Your task to perform on an android device: Set an alarm for 7pm Image 0: 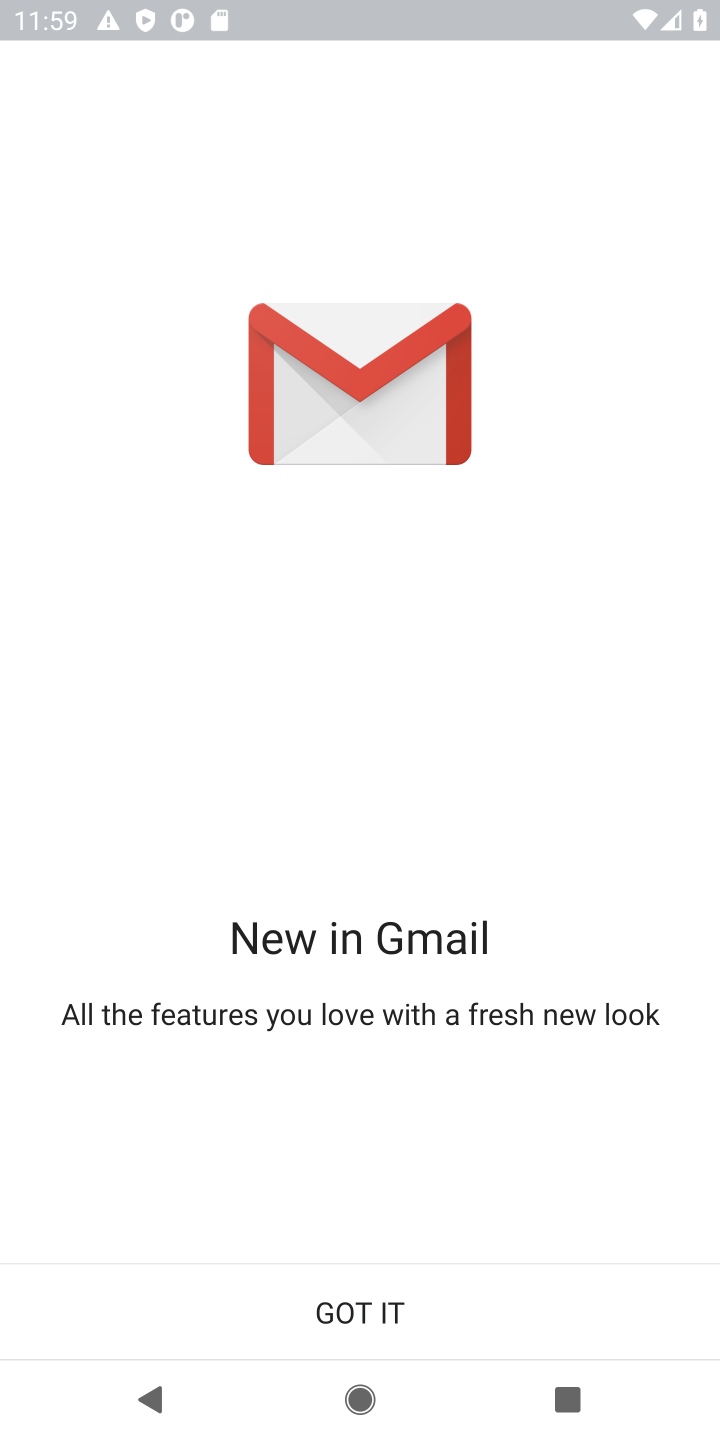
Step 0: click (361, 1284)
Your task to perform on an android device: Set an alarm for 7pm Image 1: 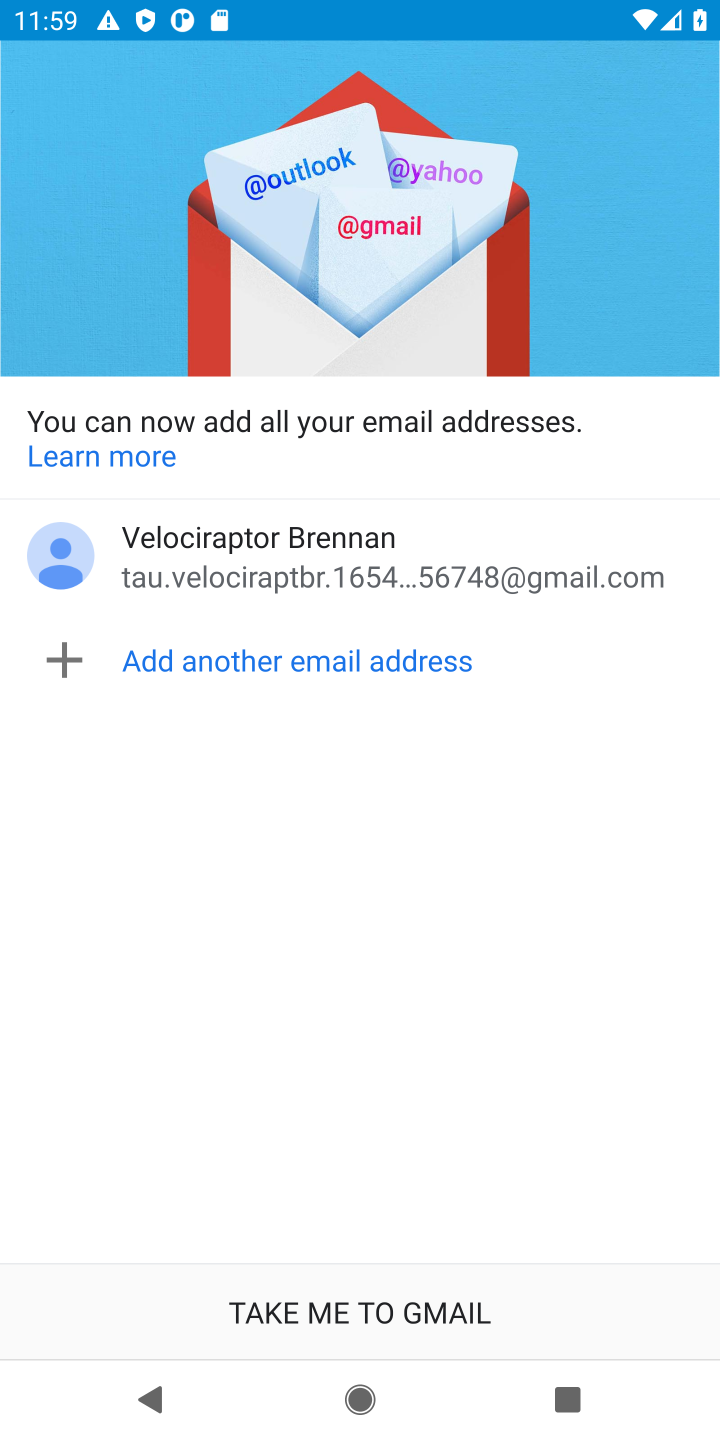
Step 1: press home button
Your task to perform on an android device: Set an alarm for 7pm Image 2: 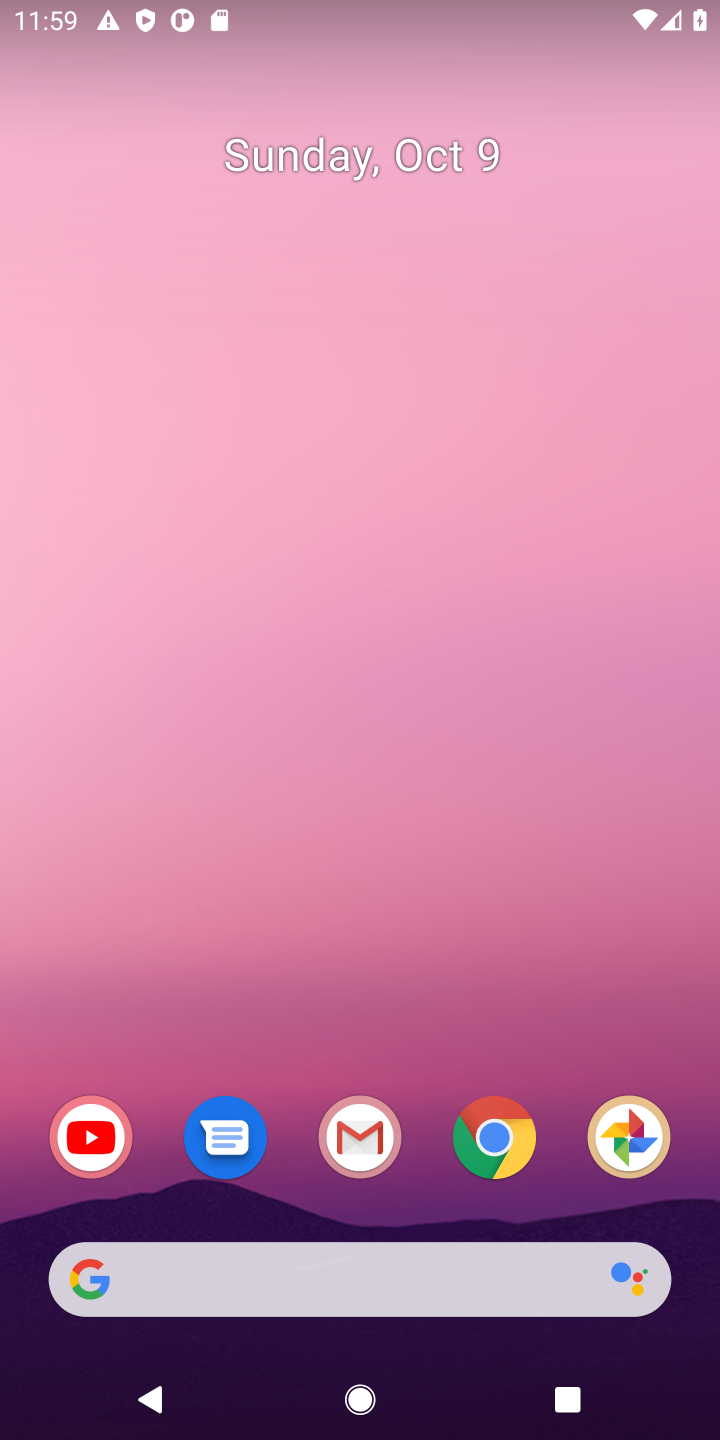
Step 2: drag from (398, 1049) to (291, 119)
Your task to perform on an android device: Set an alarm for 7pm Image 3: 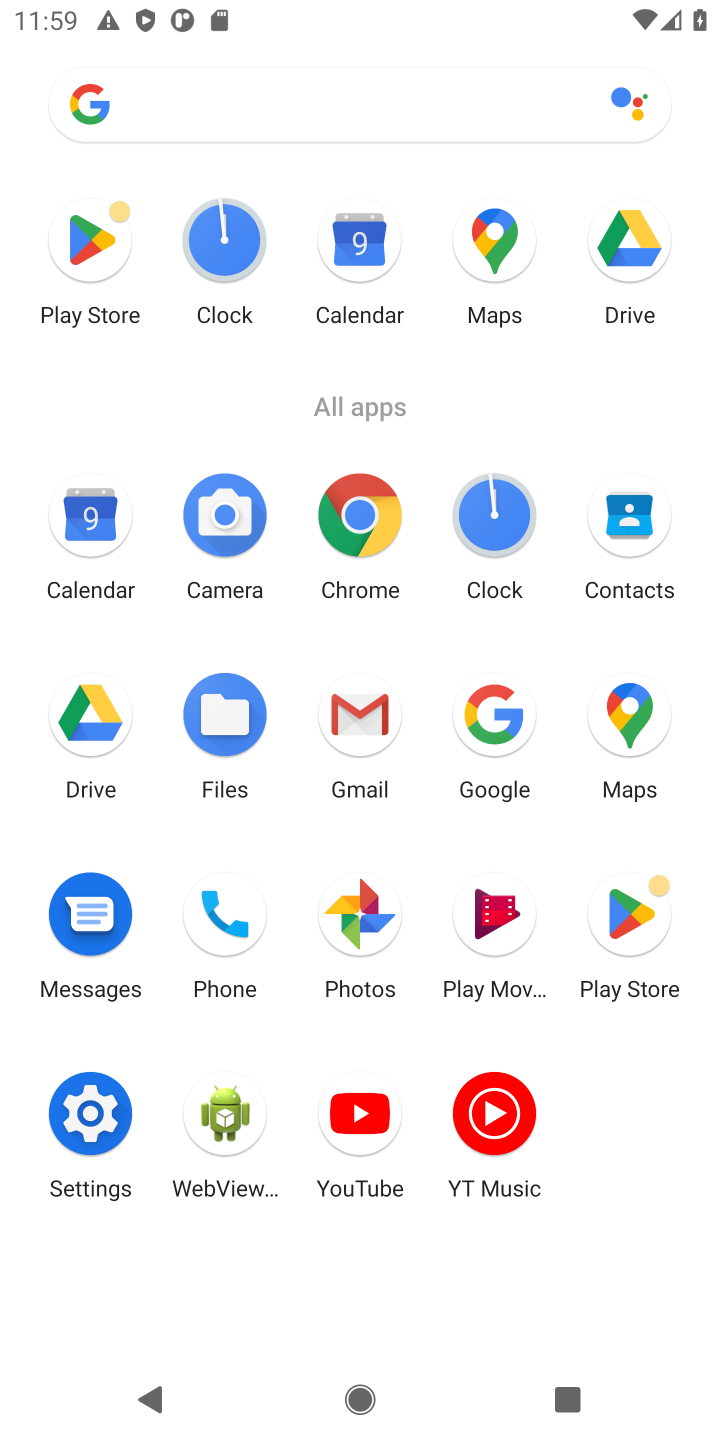
Step 3: click (513, 510)
Your task to perform on an android device: Set an alarm for 7pm Image 4: 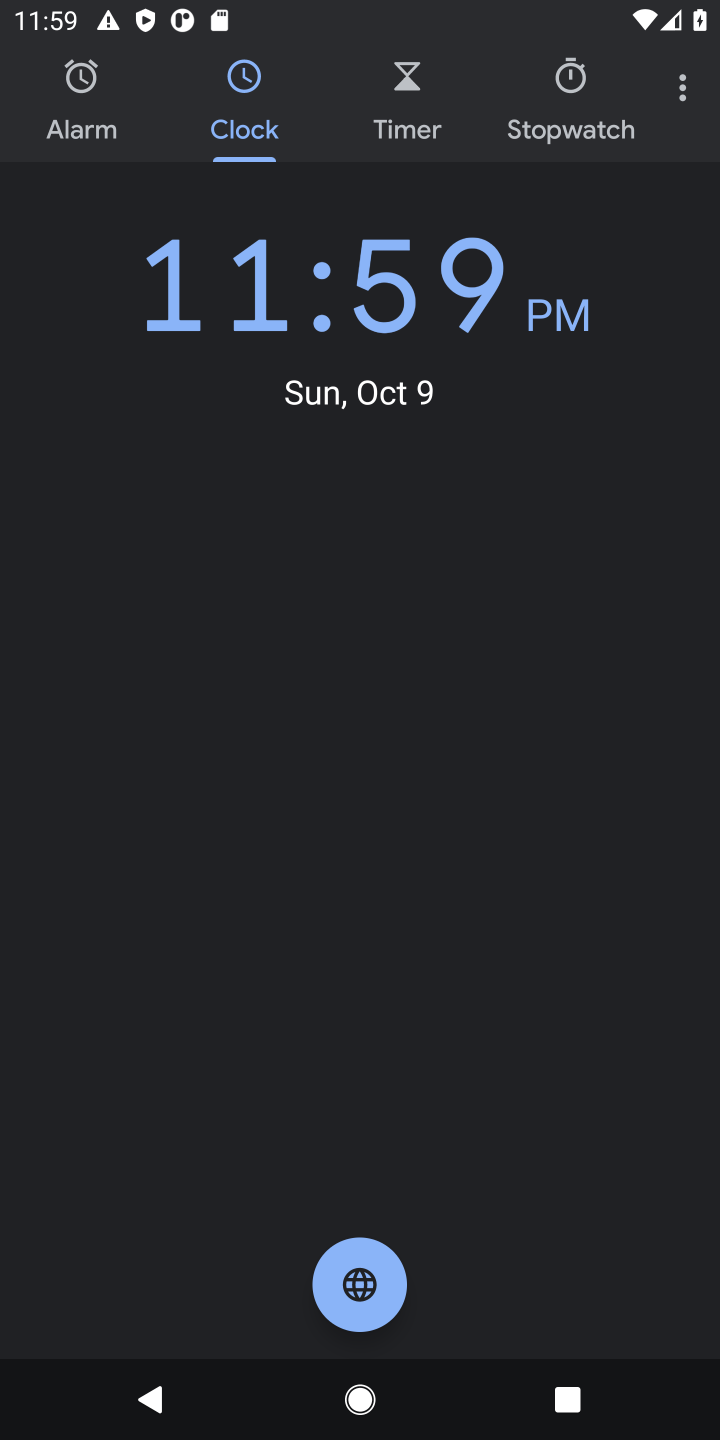
Step 4: click (92, 114)
Your task to perform on an android device: Set an alarm for 7pm Image 5: 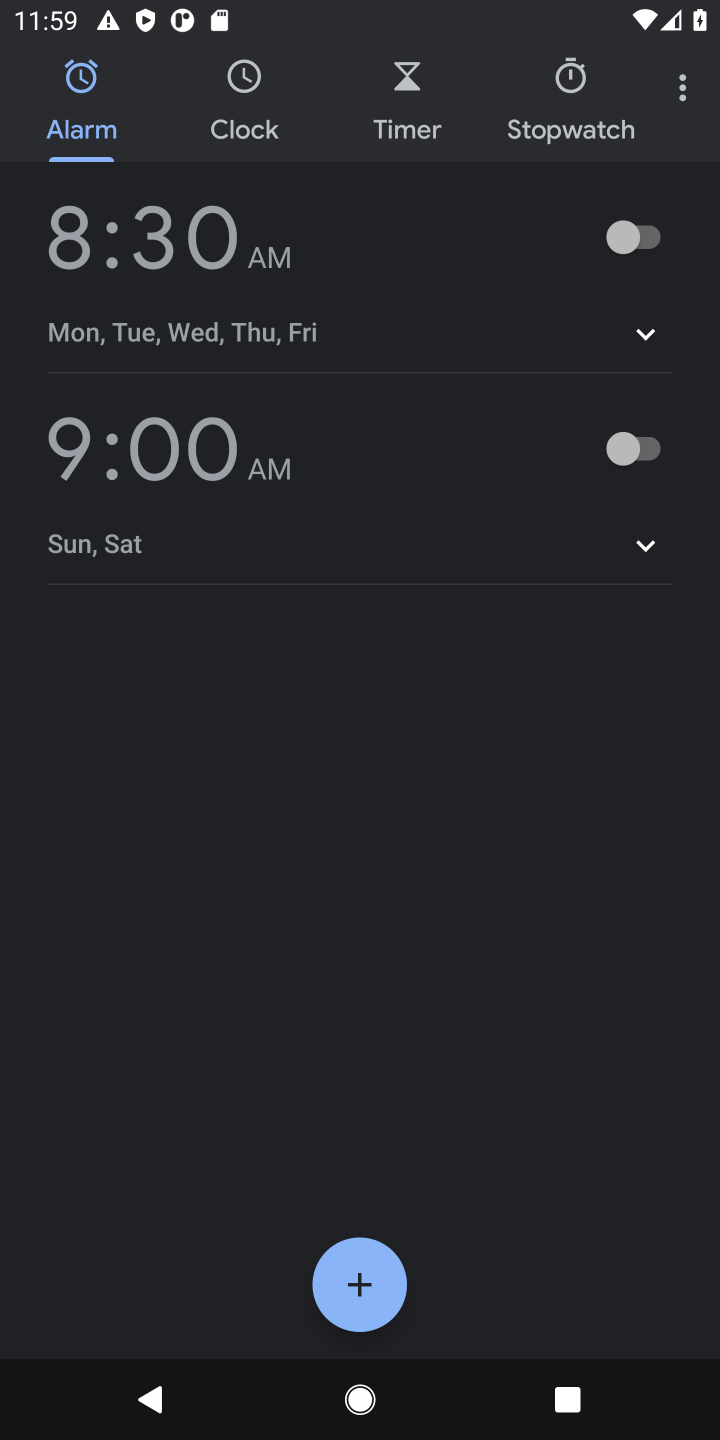
Step 5: click (349, 1258)
Your task to perform on an android device: Set an alarm for 7pm Image 6: 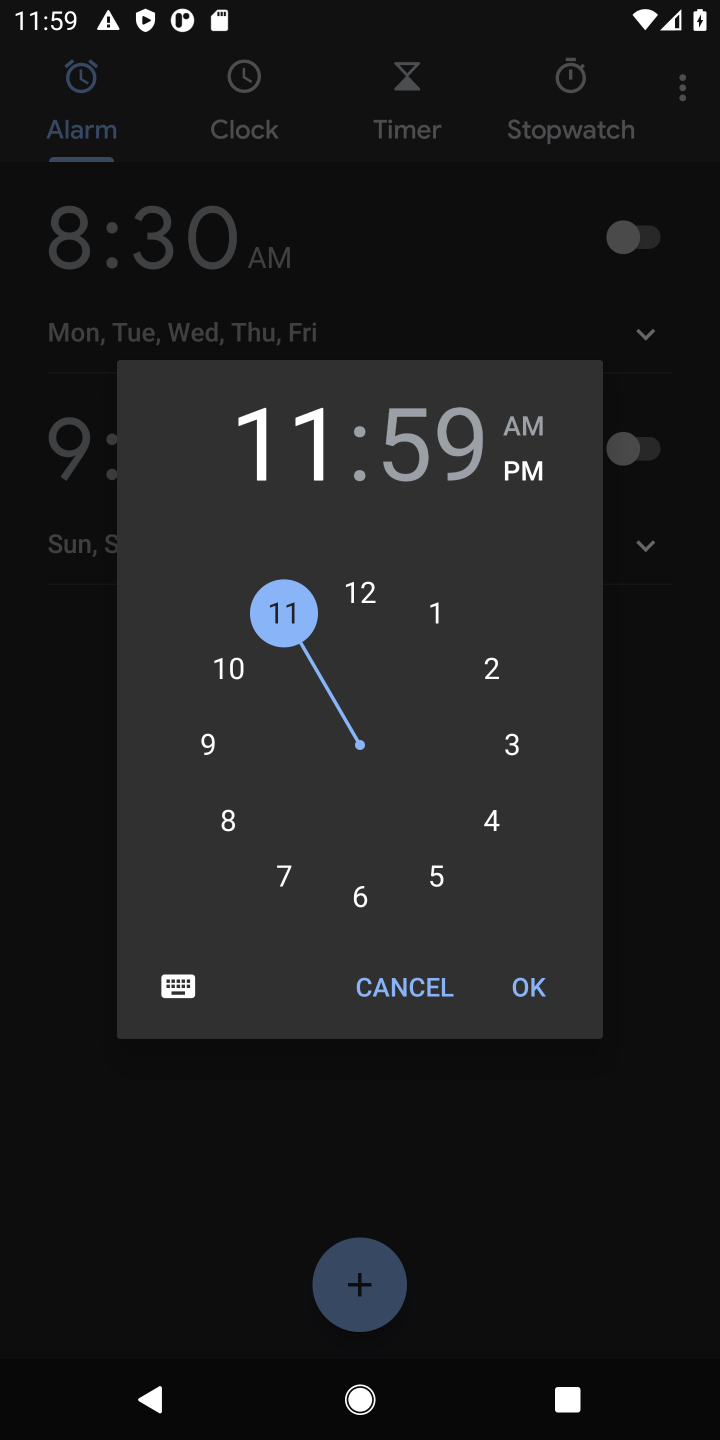
Step 6: click (296, 876)
Your task to perform on an android device: Set an alarm for 7pm Image 7: 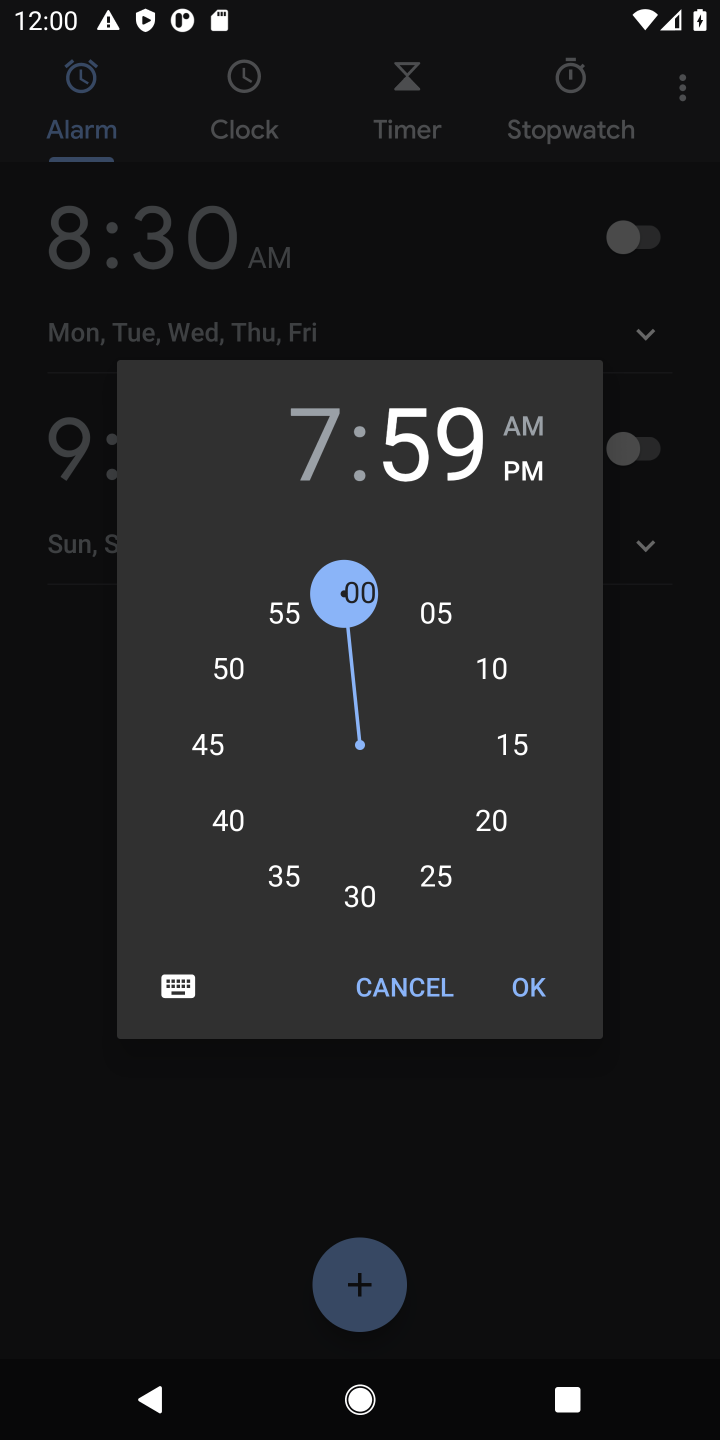
Step 7: click (362, 585)
Your task to perform on an android device: Set an alarm for 7pm Image 8: 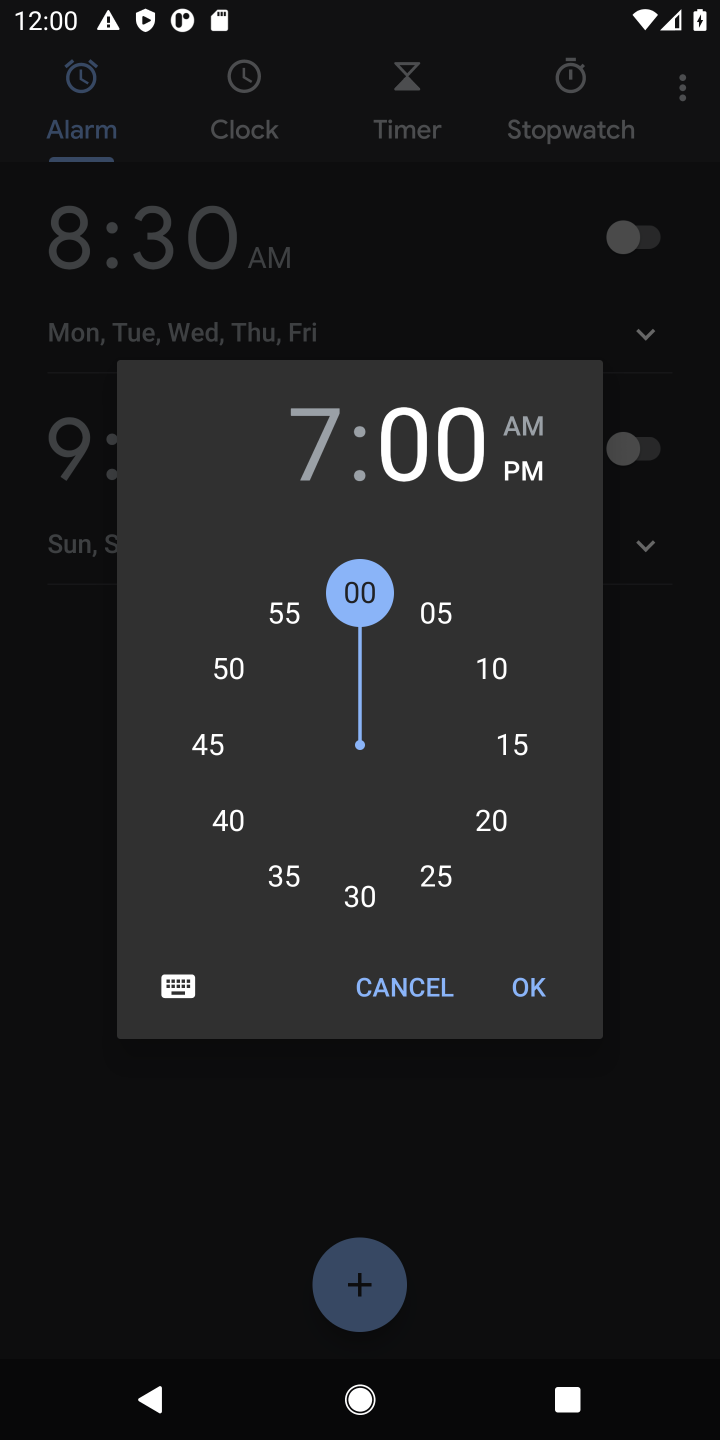
Step 8: click (532, 981)
Your task to perform on an android device: Set an alarm for 7pm Image 9: 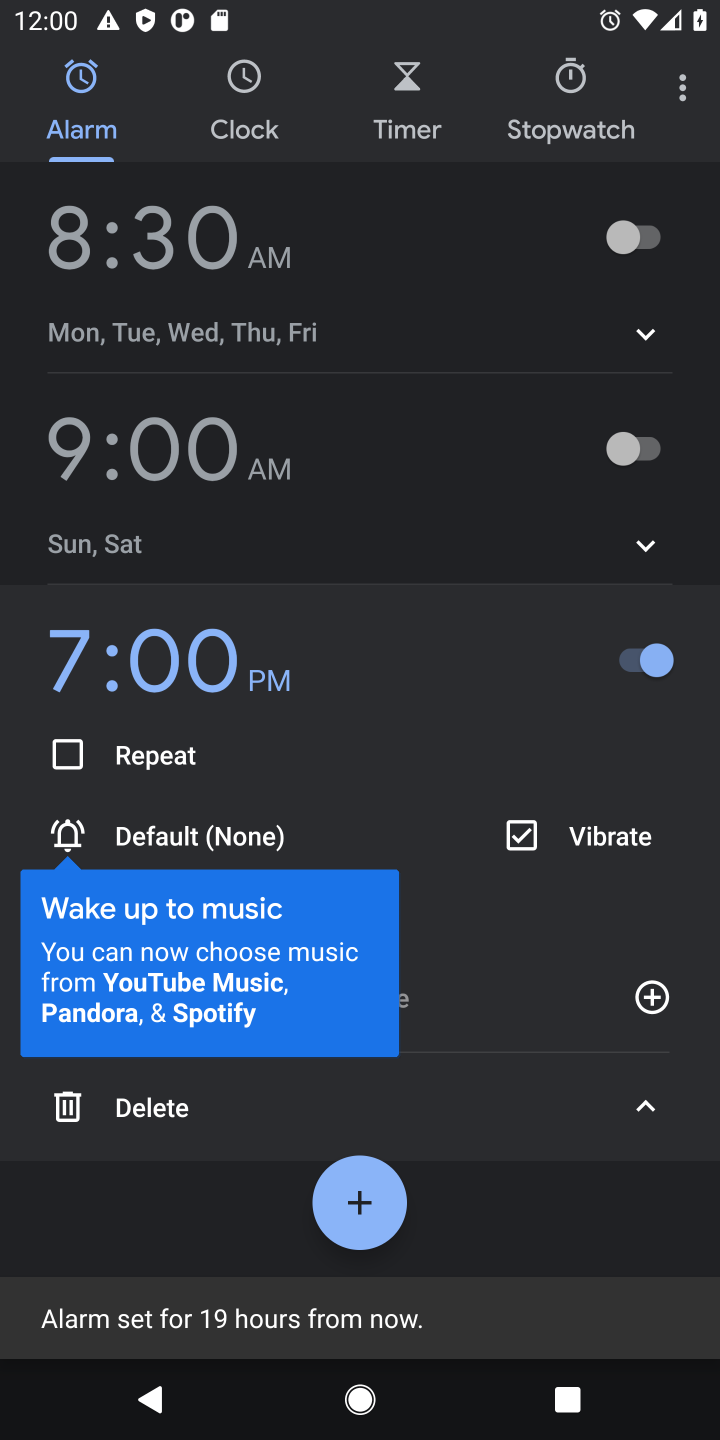
Step 9: task complete